Your task to perform on an android device: toggle translation in the chrome app Image 0: 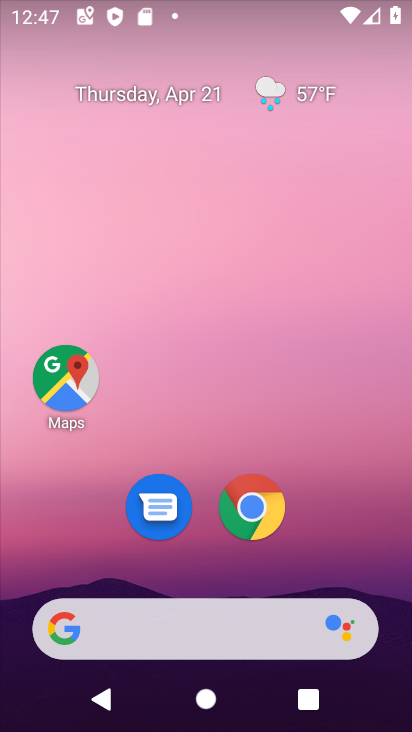
Step 0: click (247, 505)
Your task to perform on an android device: toggle translation in the chrome app Image 1: 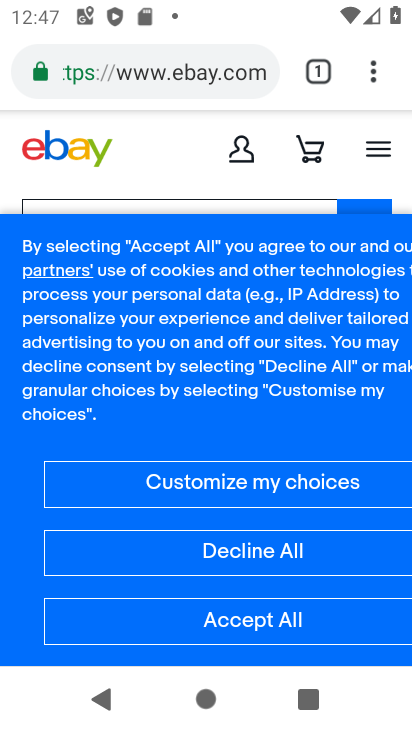
Step 1: click (373, 71)
Your task to perform on an android device: toggle translation in the chrome app Image 2: 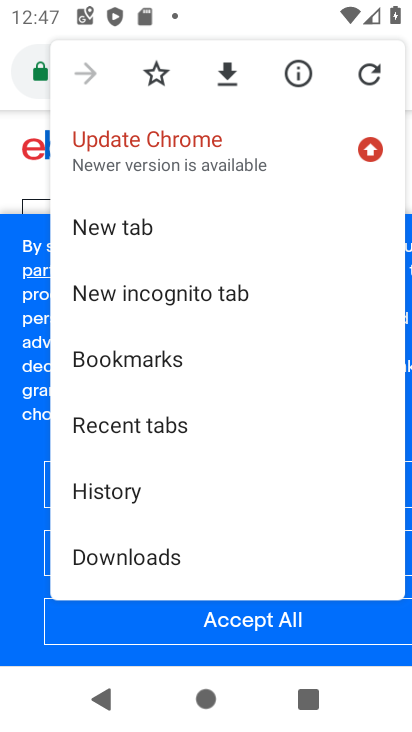
Step 2: drag from (198, 411) to (237, 324)
Your task to perform on an android device: toggle translation in the chrome app Image 3: 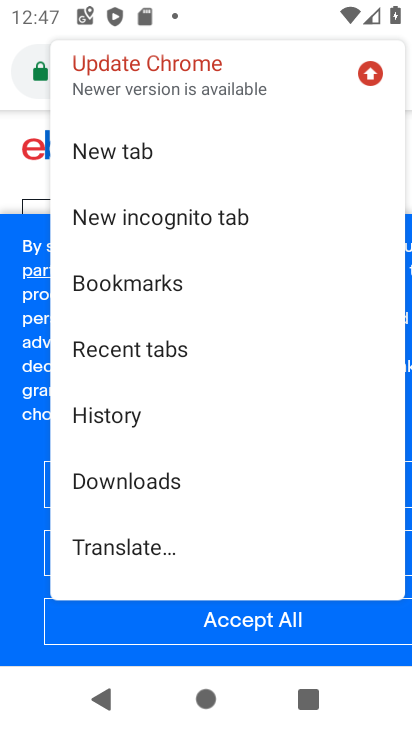
Step 3: drag from (182, 428) to (208, 357)
Your task to perform on an android device: toggle translation in the chrome app Image 4: 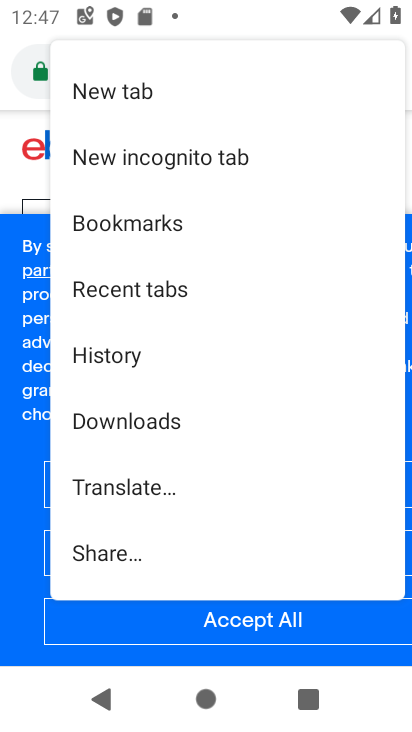
Step 4: drag from (202, 446) to (228, 351)
Your task to perform on an android device: toggle translation in the chrome app Image 5: 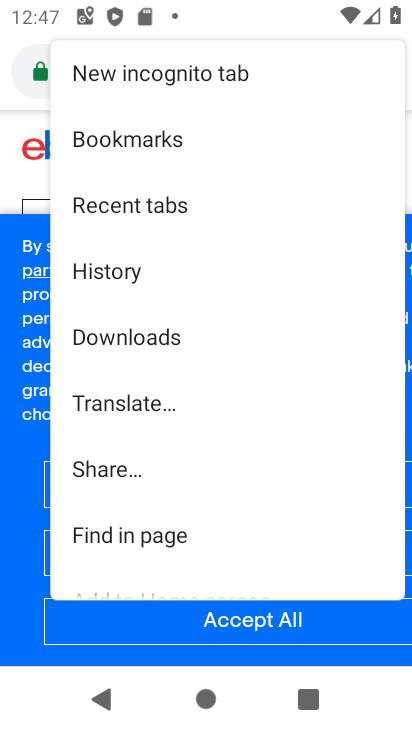
Step 5: drag from (178, 468) to (215, 359)
Your task to perform on an android device: toggle translation in the chrome app Image 6: 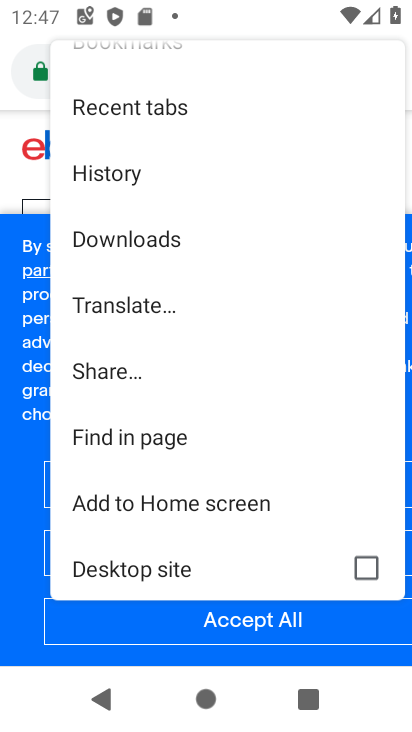
Step 6: drag from (196, 467) to (266, 357)
Your task to perform on an android device: toggle translation in the chrome app Image 7: 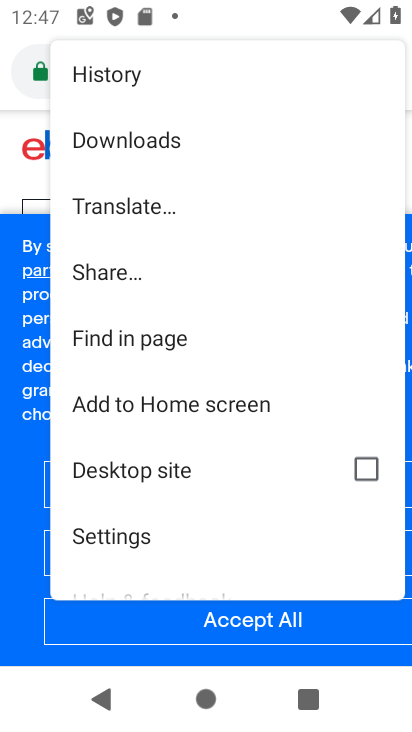
Step 7: drag from (193, 511) to (272, 388)
Your task to perform on an android device: toggle translation in the chrome app Image 8: 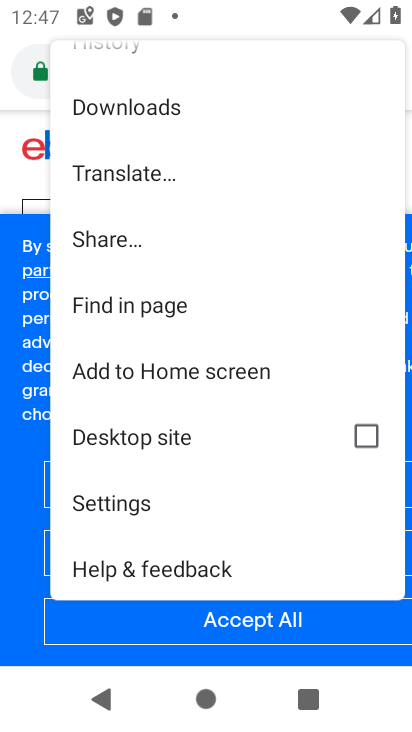
Step 8: click (140, 501)
Your task to perform on an android device: toggle translation in the chrome app Image 9: 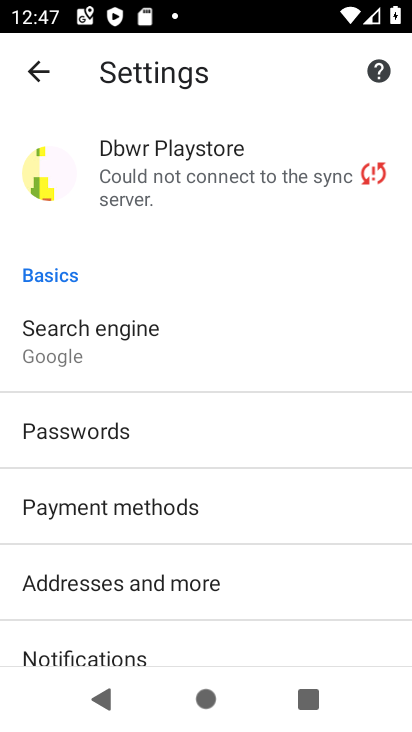
Step 9: drag from (218, 516) to (276, 375)
Your task to perform on an android device: toggle translation in the chrome app Image 10: 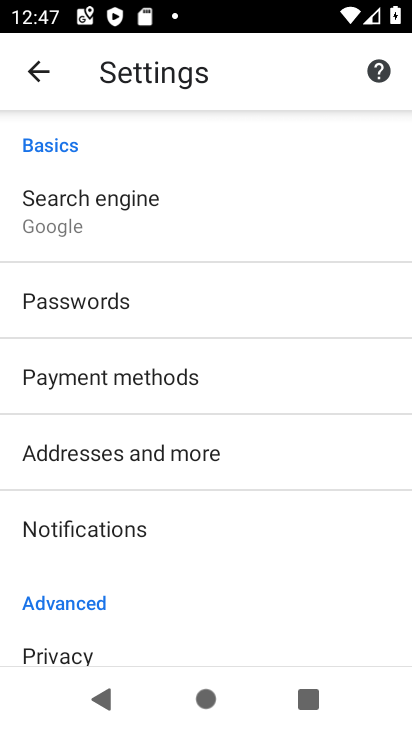
Step 10: drag from (190, 573) to (245, 405)
Your task to perform on an android device: toggle translation in the chrome app Image 11: 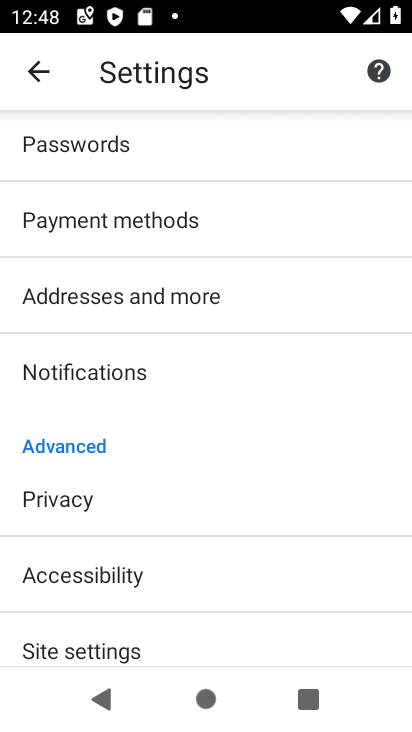
Step 11: drag from (198, 489) to (274, 341)
Your task to perform on an android device: toggle translation in the chrome app Image 12: 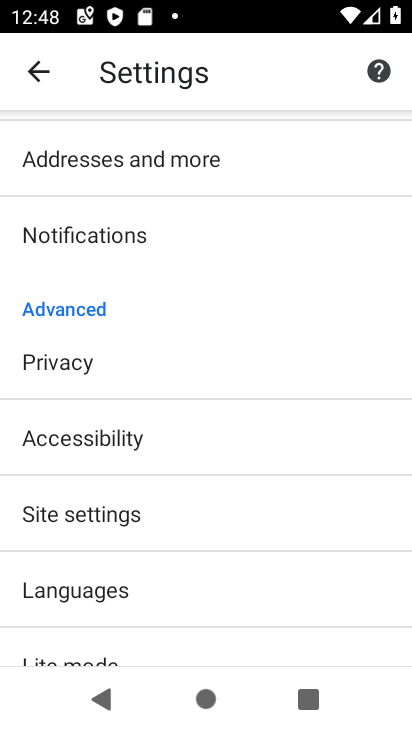
Step 12: click (113, 592)
Your task to perform on an android device: toggle translation in the chrome app Image 13: 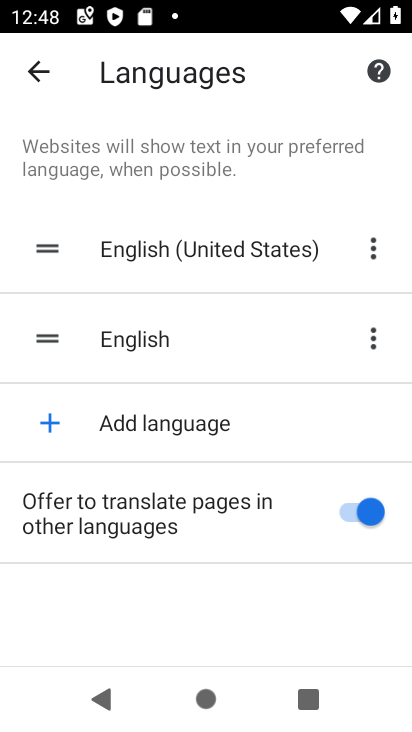
Step 13: click (361, 508)
Your task to perform on an android device: toggle translation in the chrome app Image 14: 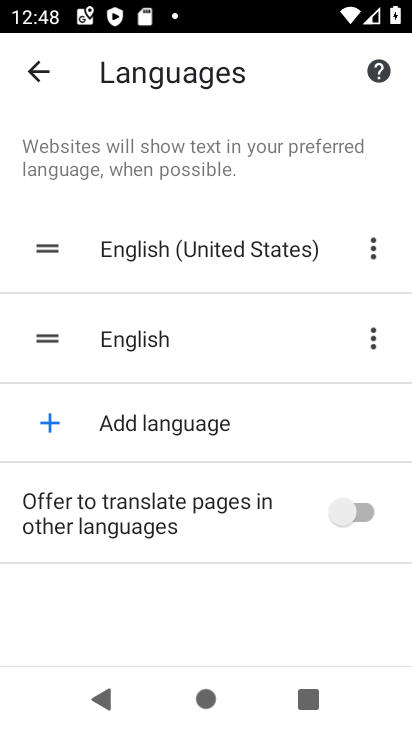
Step 14: task complete